Your task to perform on an android device: delete a single message in the gmail app Image 0: 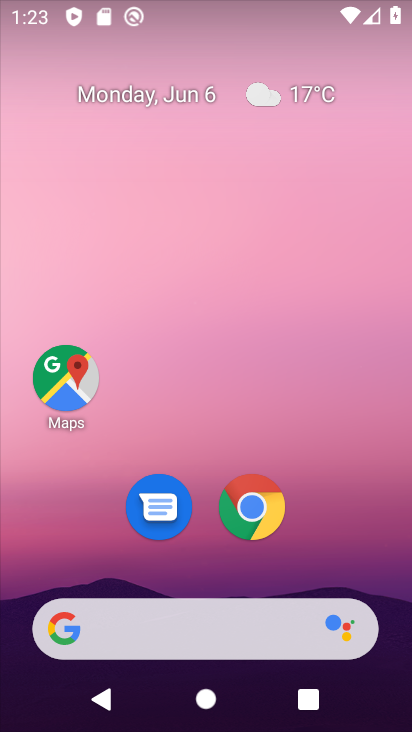
Step 0: drag from (306, 669) to (192, 85)
Your task to perform on an android device: delete a single message in the gmail app Image 1: 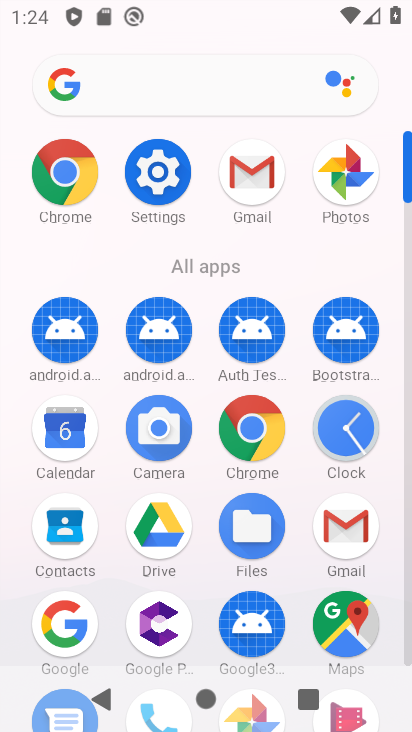
Step 1: click (254, 201)
Your task to perform on an android device: delete a single message in the gmail app Image 2: 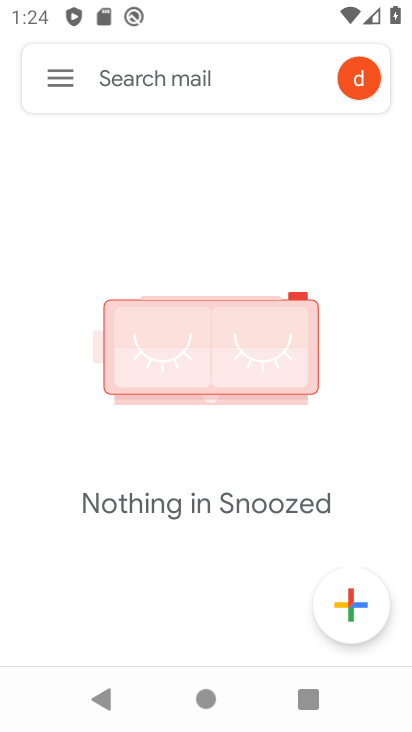
Step 2: click (47, 80)
Your task to perform on an android device: delete a single message in the gmail app Image 3: 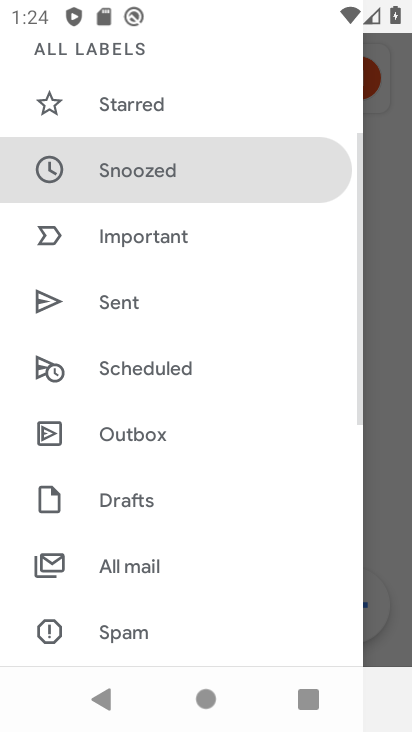
Step 3: click (174, 562)
Your task to perform on an android device: delete a single message in the gmail app Image 4: 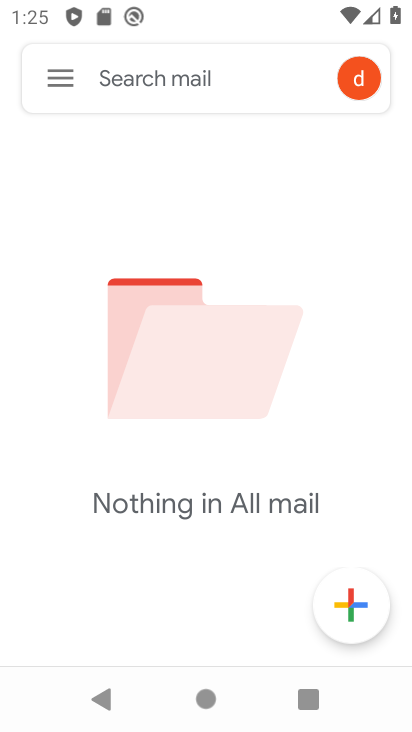
Step 4: task complete